Your task to perform on an android device: Open the stopwatch Image 0: 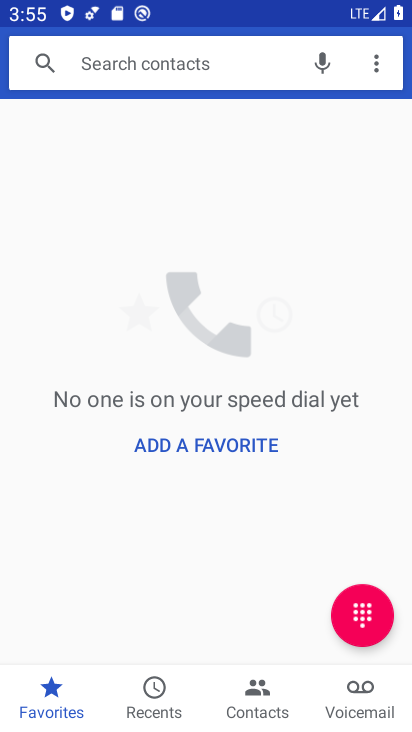
Step 0: press home button
Your task to perform on an android device: Open the stopwatch Image 1: 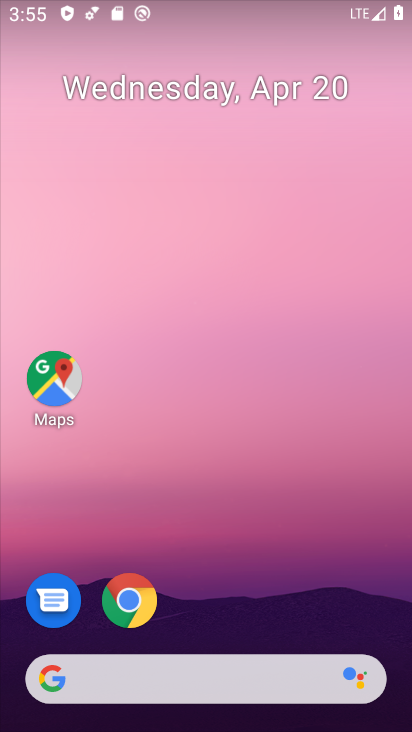
Step 1: drag from (224, 585) to (207, 191)
Your task to perform on an android device: Open the stopwatch Image 2: 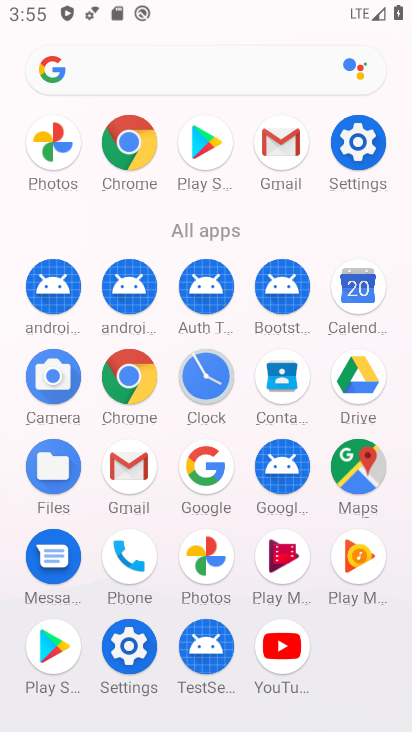
Step 2: click (212, 374)
Your task to perform on an android device: Open the stopwatch Image 3: 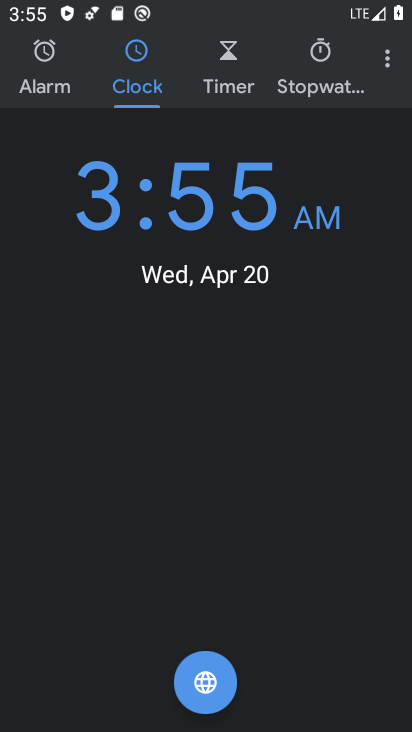
Step 3: click (327, 85)
Your task to perform on an android device: Open the stopwatch Image 4: 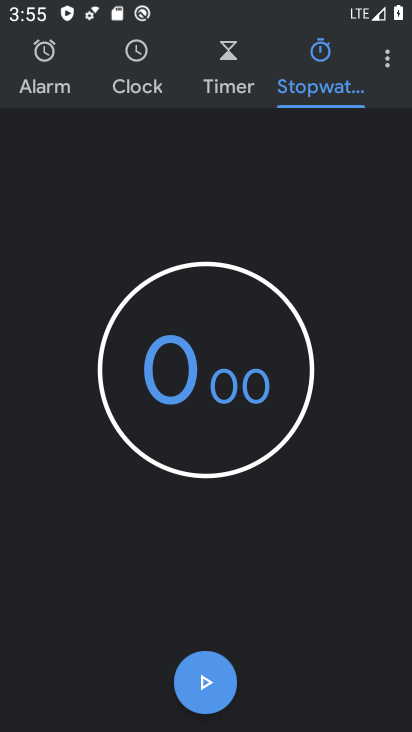
Step 4: task complete